Your task to perform on an android device: change notifications settings Image 0: 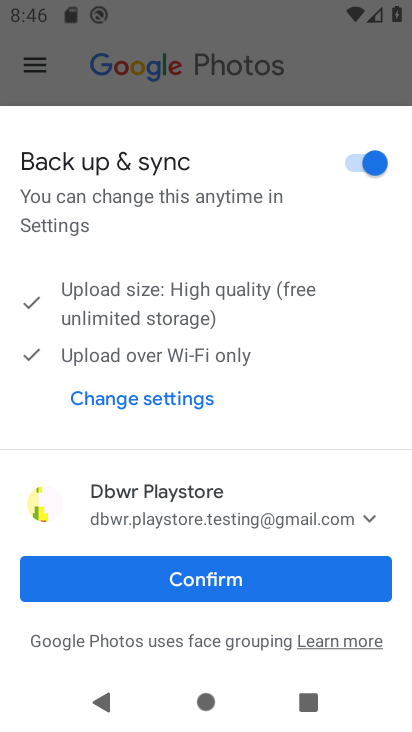
Step 0: press home button
Your task to perform on an android device: change notifications settings Image 1: 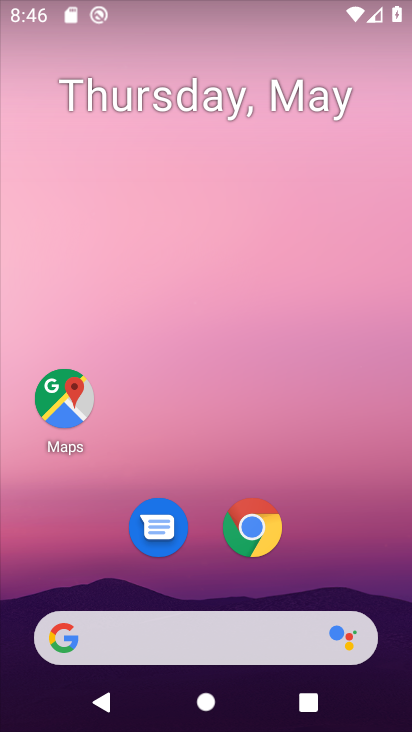
Step 1: drag from (281, 572) to (239, 134)
Your task to perform on an android device: change notifications settings Image 2: 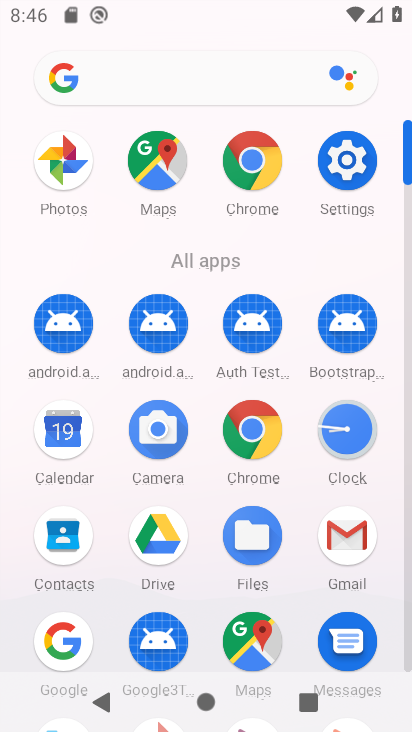
Step 2: click (361, 161)
Your task to perform on an android device: change notifications settings Image 3: 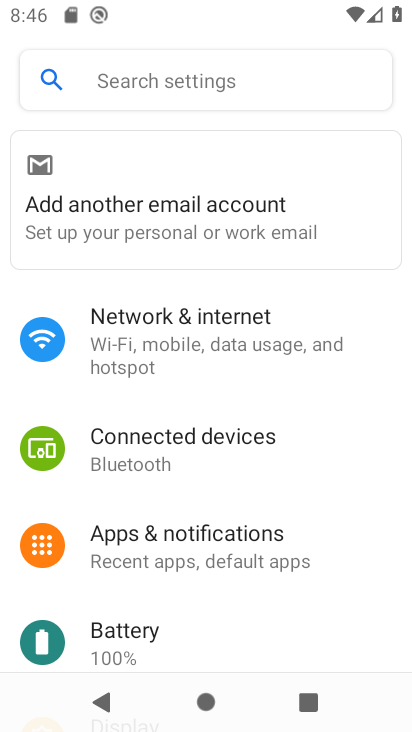
Step 3: click (165, 546)
Your task to perform on an android device: change notifications settings Image 4: 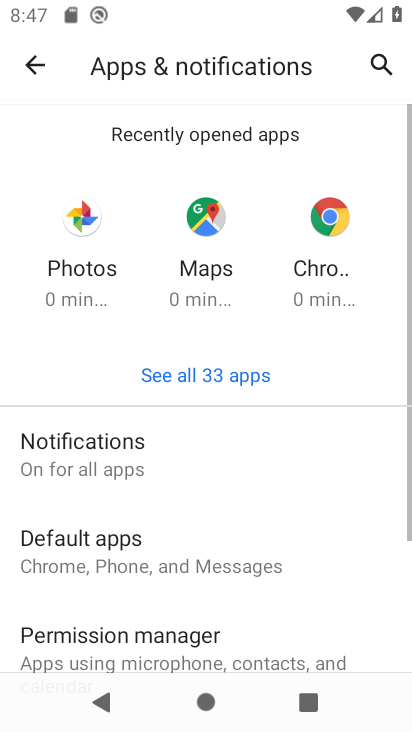
Step 4: click (79, 452)
Your task to perform on an android device: change notifications settings Image 5: 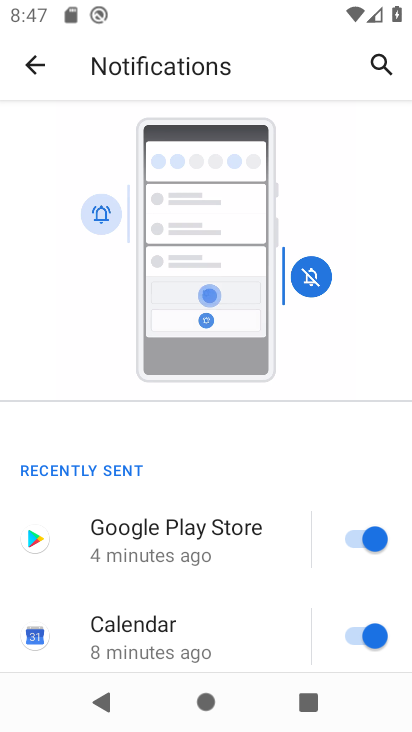
Step 5: drag from (203, 605) to (168, 150)
Your task to perform on an android device: change notifications settings Image 6: 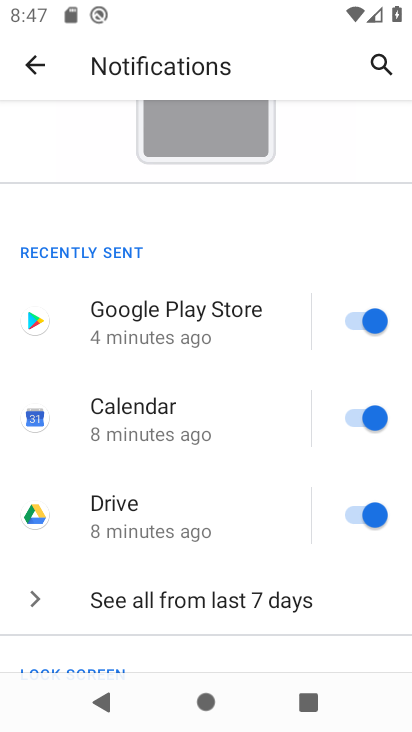
Step 6: drag from (182, 574) to (173, 159)
Your task to perform on an android device: change notifications settings Image 7: 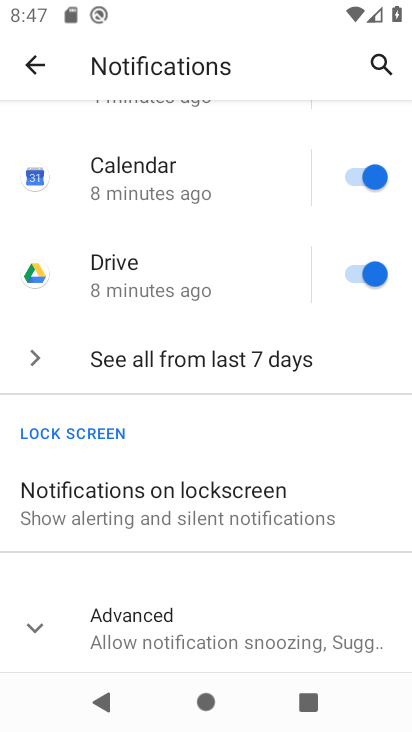
Step 7: click (193, 511)
Your task to perform on an android device: change notifications settings Image 8: 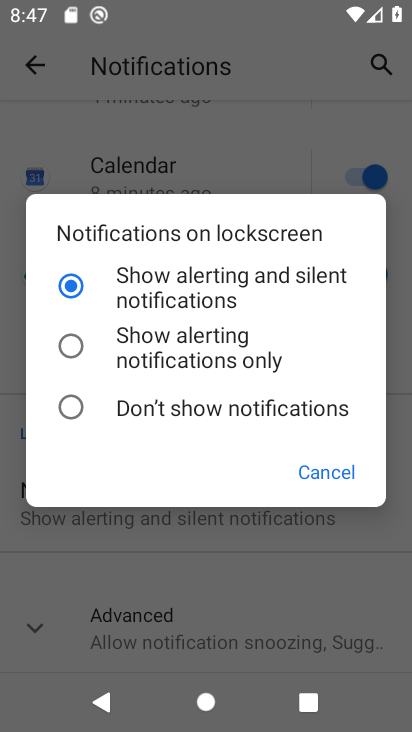
Step 8: click (65, 404)
Your task to perform on an android device: change notifications settings Image 9: 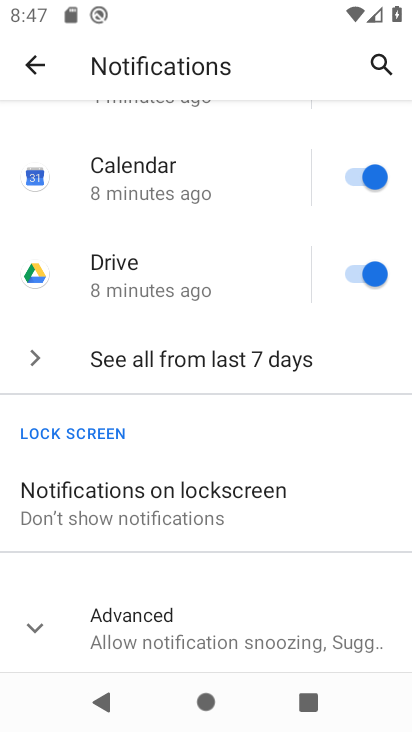
Step 9: task complete